Your task to perform on an android device: turn vacation reply on in the gmail app Image 0: 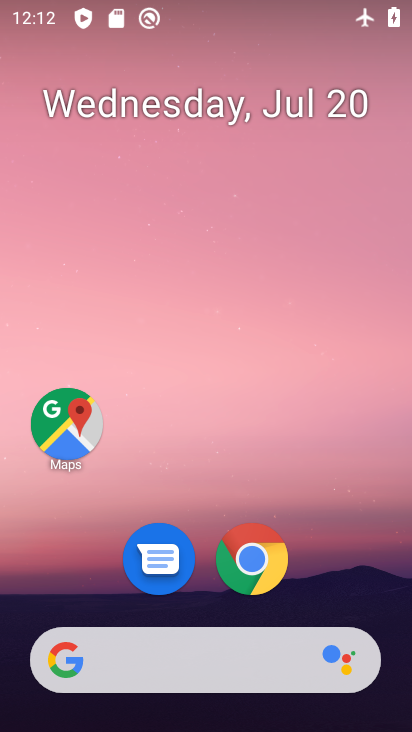
Step 0: click (226, 636)
Your task to perform on an android device: turn vacation reply on in the gmail app Image 1: 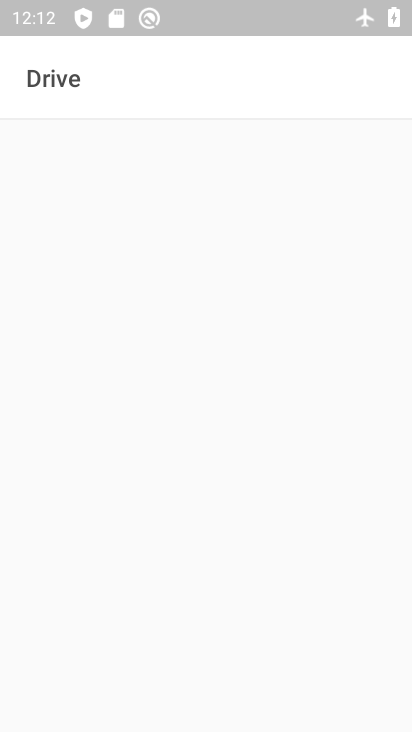
Step 1: press home button
Your task to perform on an android device: turn vacation reply on in the gmail app Image 2: 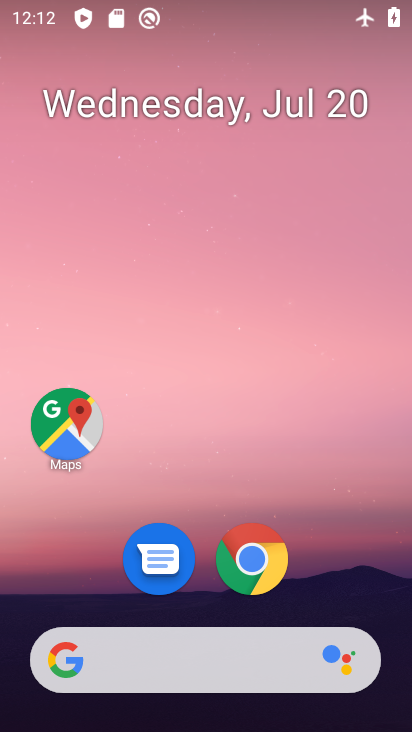
Step 2: drag from (357, 578) to (349, 105)
Your task to perform on an android device: turn vacation reply on in the gmail app Image 3: 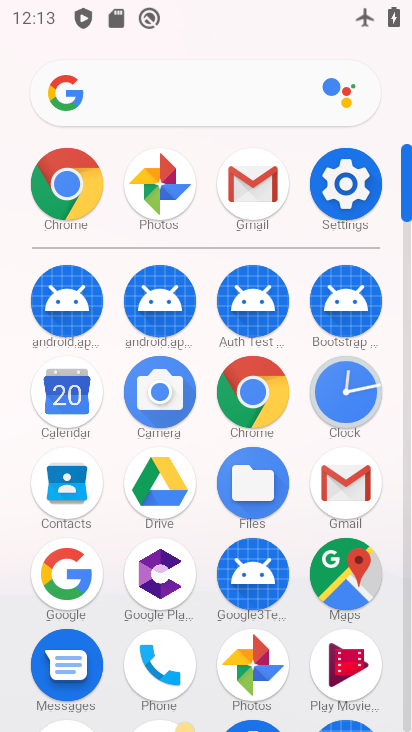
Step 3: click (343, 486)
Your task to perform on an android device: turn vacation reply on in the gmail app Image 4: 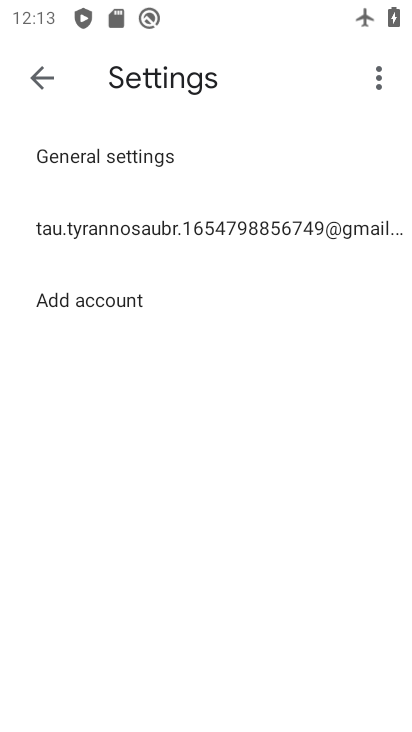
Step 4: click (234, 239)
Your task to perform on an android device: turn vacation reply on in the gmail app Image 5: 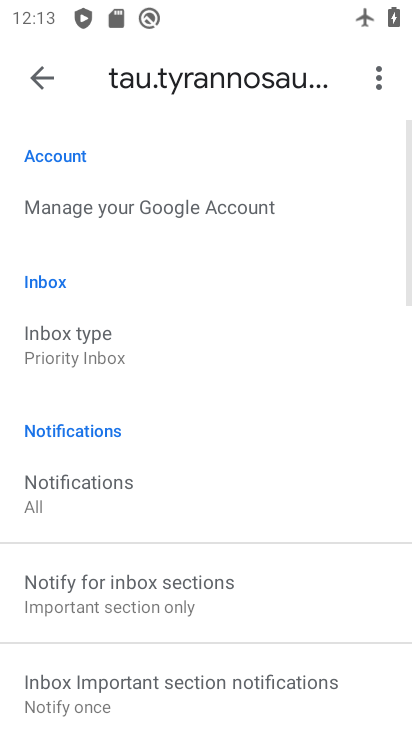
Step 5: drag from (338, 462) to (338, 375)
Your task to perform on an android device: turn vacation reply on in the gmail app Image 6: 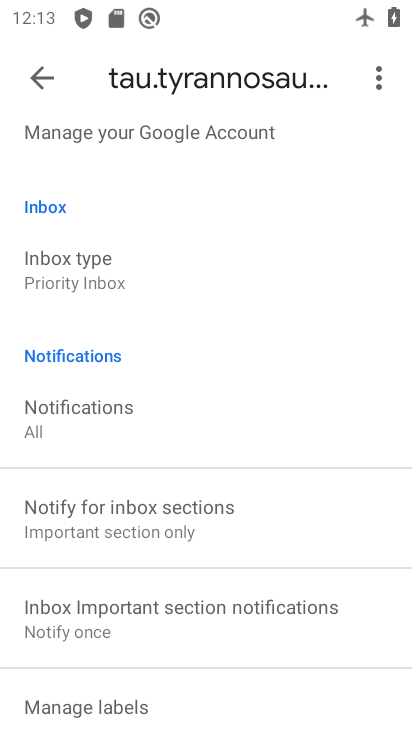
Step 6: drag from (341, 489) to (340, 388)
Your task to perform on an android device: turn vacation reply on in the gmail app Image 7: 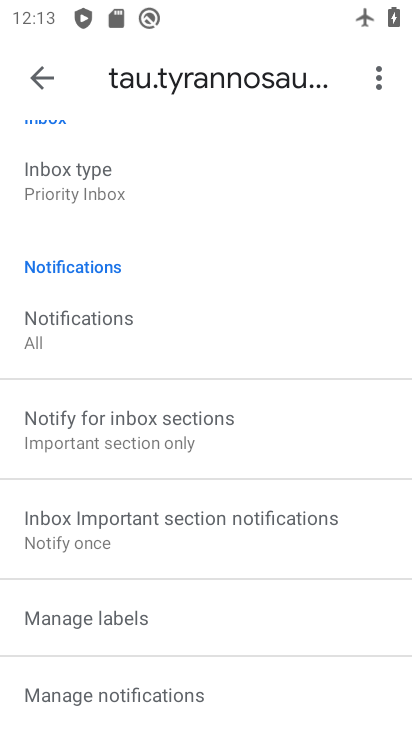
Step 7: drag from (346, 534) to (344, 353)
Your task to perform on an android device: turn vacation reply on in the gmail app Image 8: 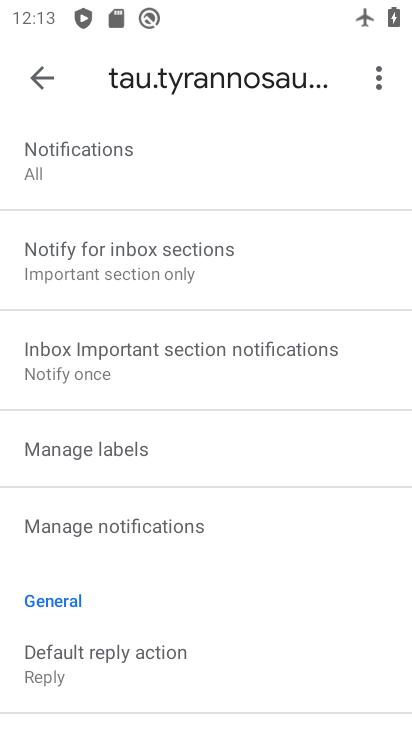
Step 8: drag from (300, 506) to (300, 404)
Your task to perform on an android device: turn vacation reply on in the gmail app Image 9: 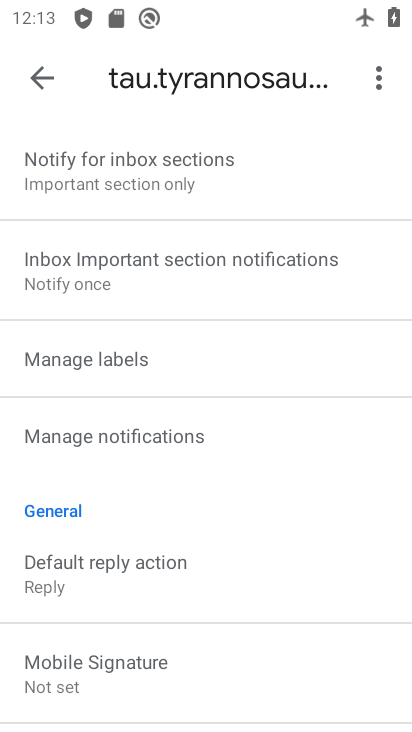
Step 9: drag from (310, 493) to (311, 391)
Your task to perform on an android device: turn vacation reply on in the gmail app Image 10: 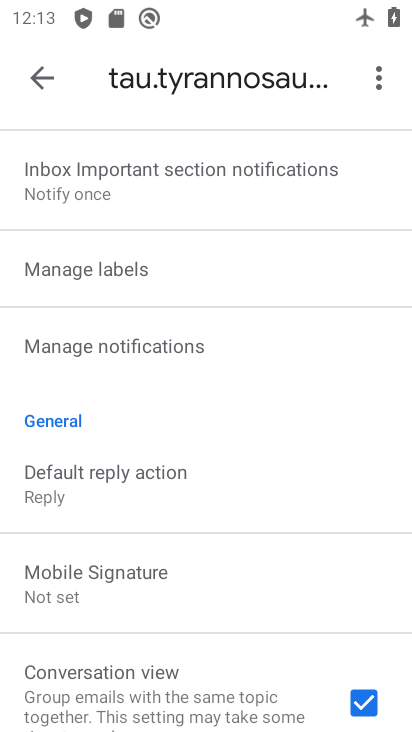
Step 10: drag from (289, 554) to (289, 436)
Your task to perform on an android device: turn vacation reply on in the gmail app Image 11: 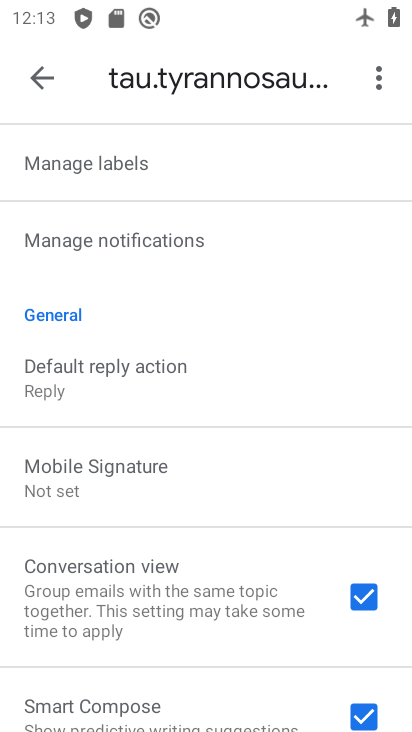
Step 11: drag from (295, 631) to (300, 438)
Your task to perform on an android device: turn vacation reply on in the gmail app Image 12: 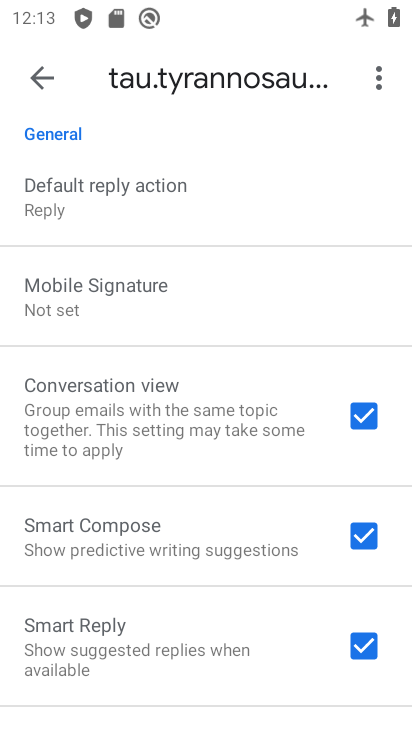
Step 12: drag from (272, 589) to (272, 458)
Your task to perform on an android device: turn vacation reply on in the gmail app Image 13: 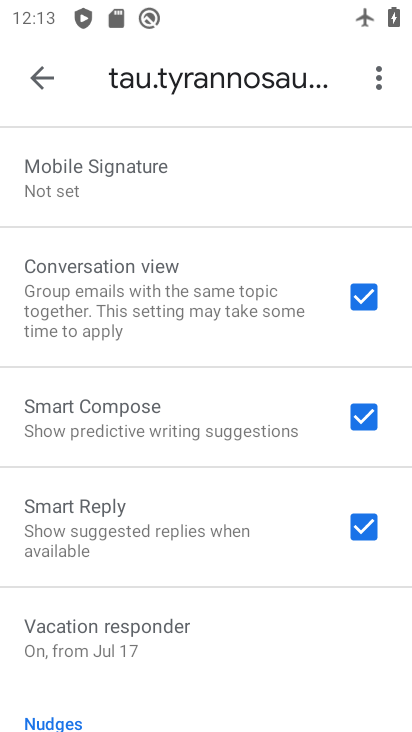
Step 13: click (265, 627)
Your task to perform on an android device: turn vacation reply on in the gmail app Image 14: 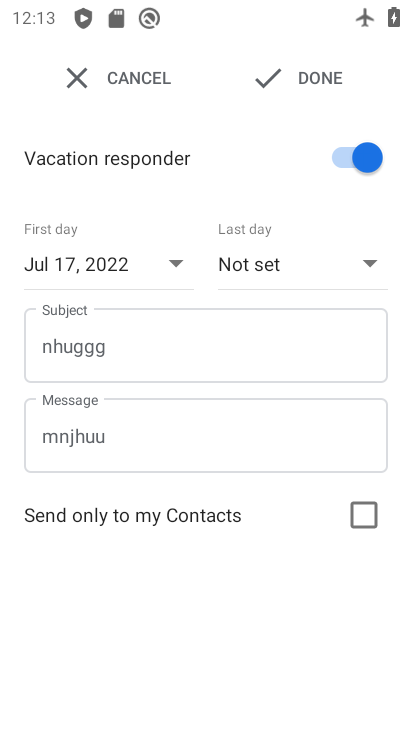
Step 14: task complete